Your task to perform on an android device: Open Google Maps and go to "Timeline" Image 0: 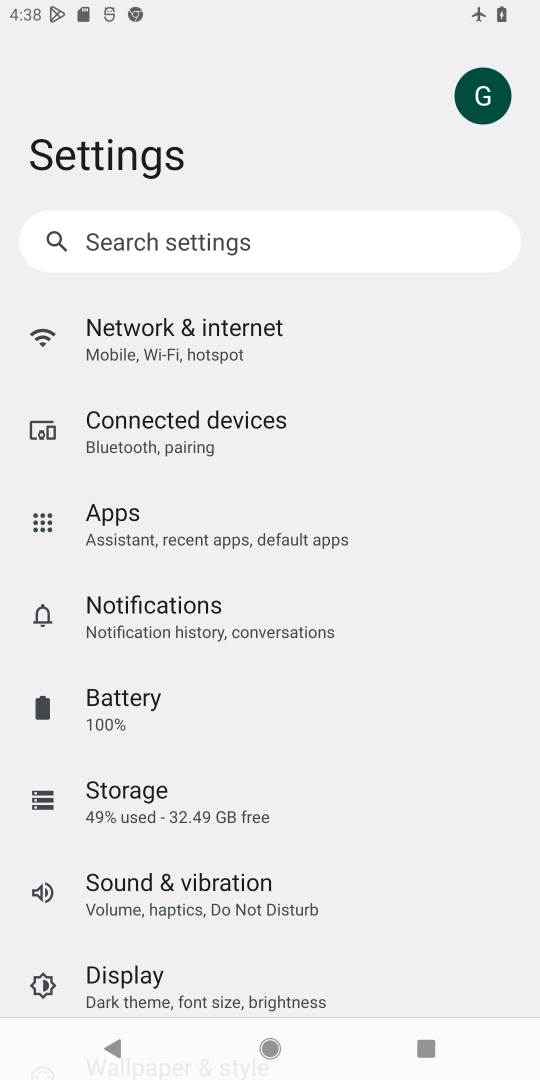
Step 0: press home button
Your task to perform on an android device: Open Google Maps and go to "Timeline" Image 1: 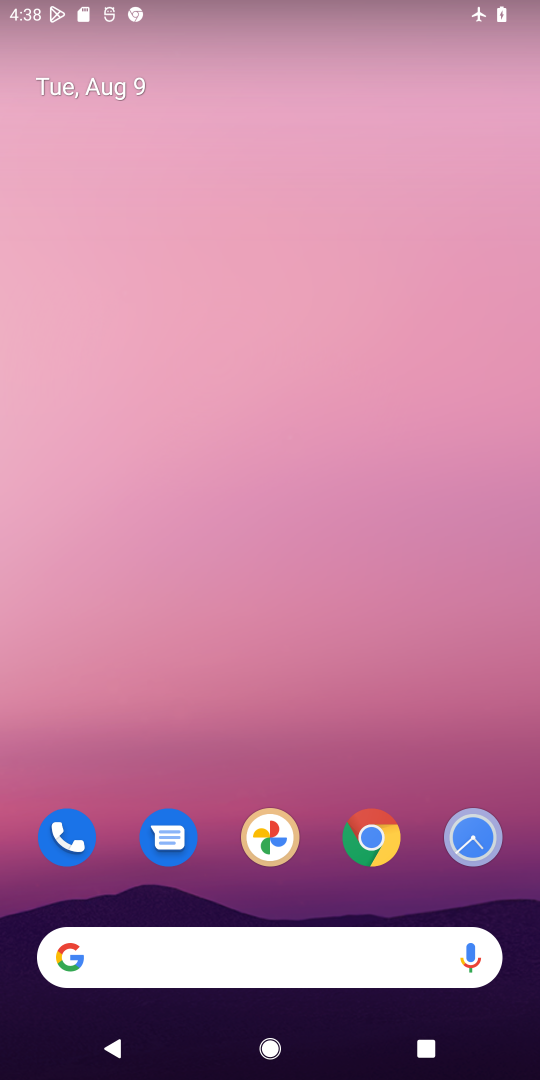
Step 1: drag from (102, 859) to (155, 108)
Your task to perform on an android device: Open Google Maps and go to "Timeline" Image 2: 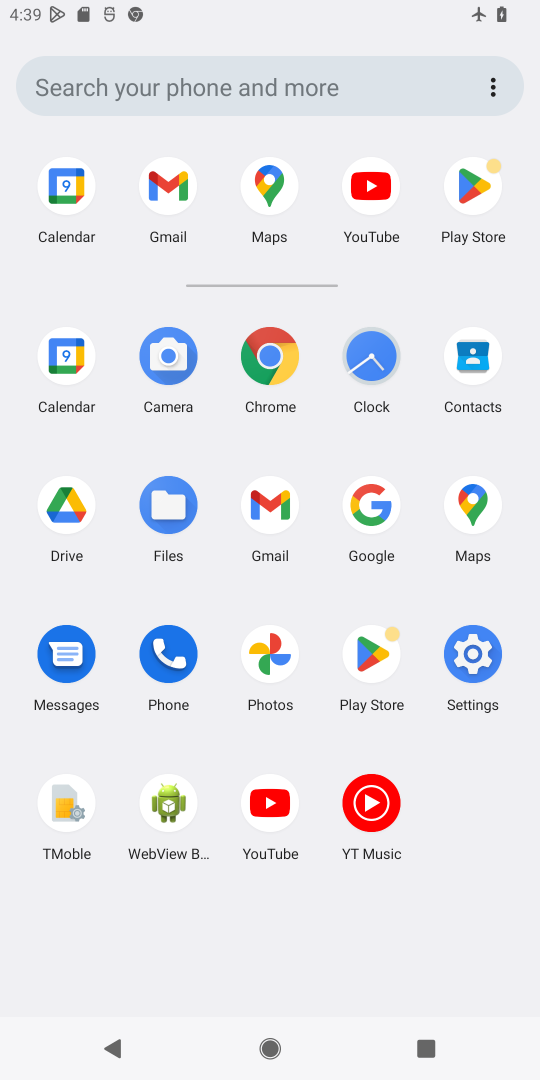
Step 2: click (463, 510)
Your task to perform on an android device: Open Google Maps and go to "Timeline" Image 3: 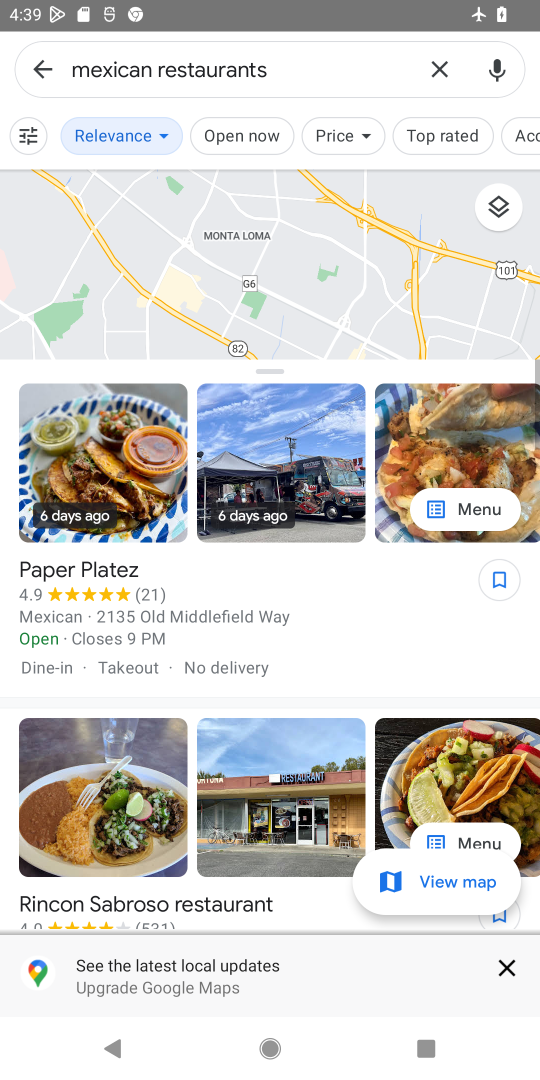
Step 3: click (422, 63)
Your task to perform on an android device: Open Google Maps and go to "Timeline" Image 4: 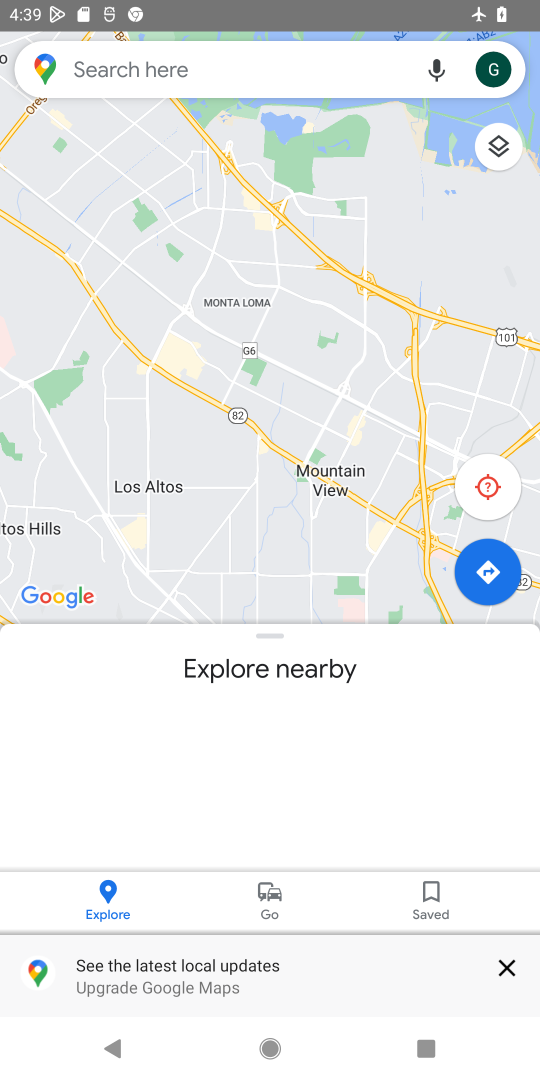
Step 4: click (265, 64)
Your task to perform on an android device: Open Google Maps and go to "Timeline" Image 5: 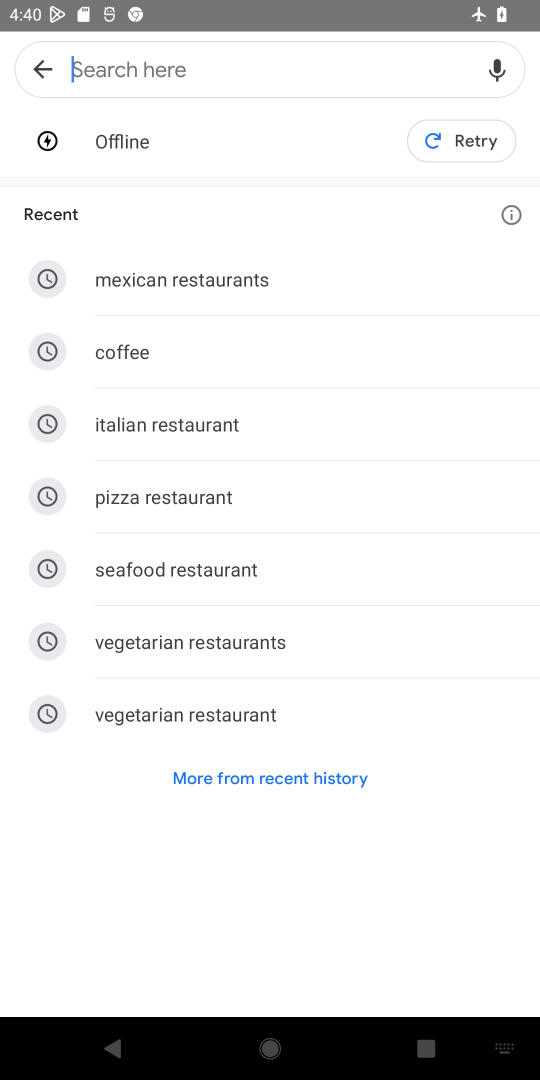
Step 5: click (30, 57)
Your task to perform on an android device: Open Google Maps and go to "Timeline" Image 6: 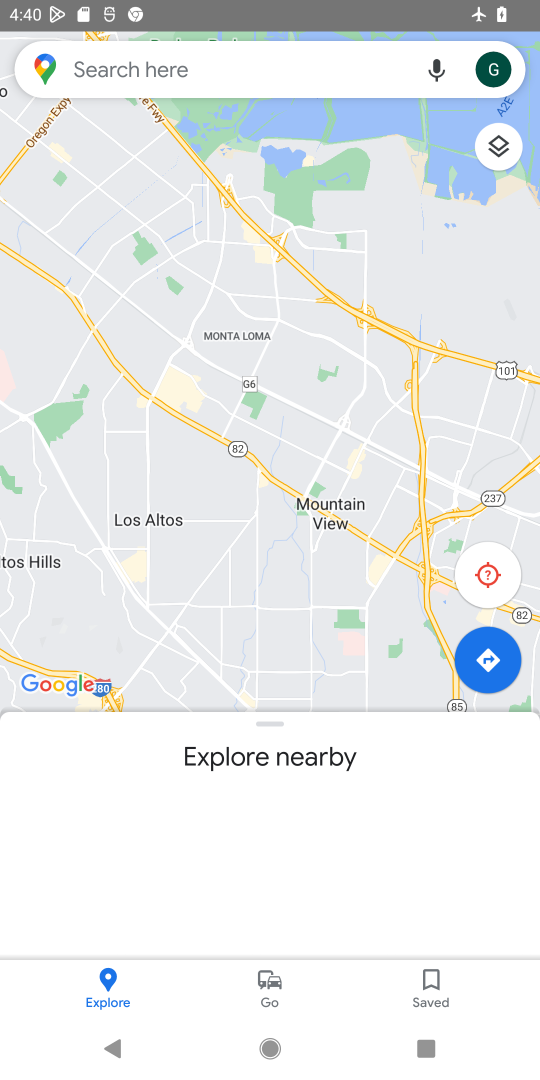
Step 6: click (499, 78)
Your task to perform on an android device: Open Google Maps and go to "Timeline" Image 7: 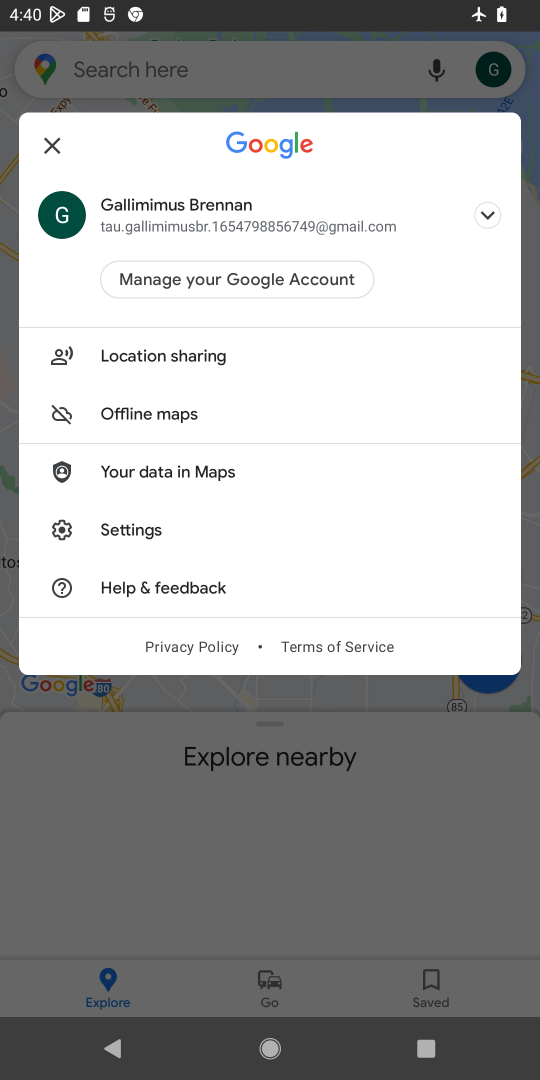
Step 7: click (458, 848)
Your task to perform on an android device: Open Google Maps and go to "Timeline" Image 8: 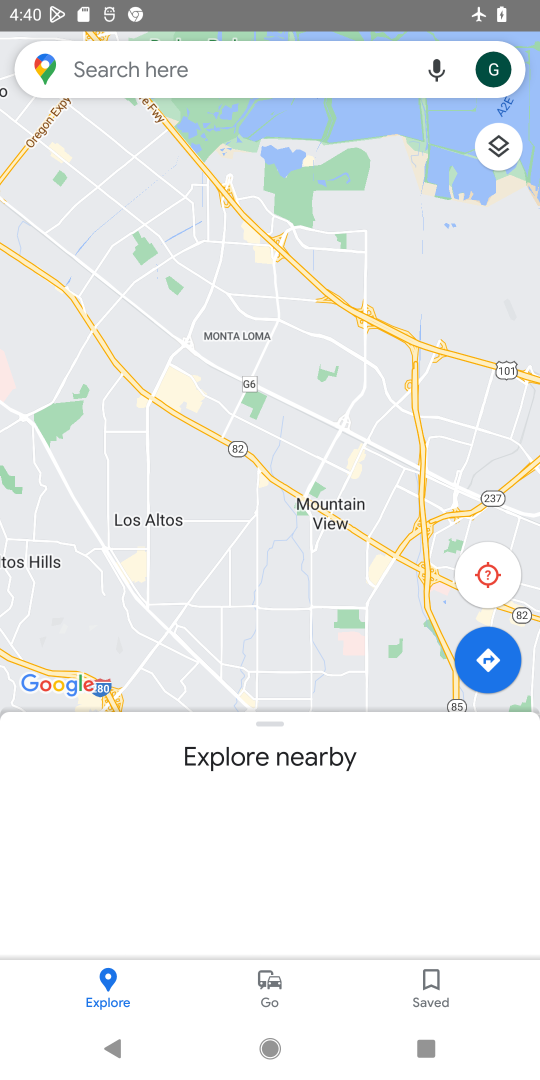
Step 8: click (36, 70)
Your task to perform on an android device: Open Google Maps and go to "Timeline" Image 9: 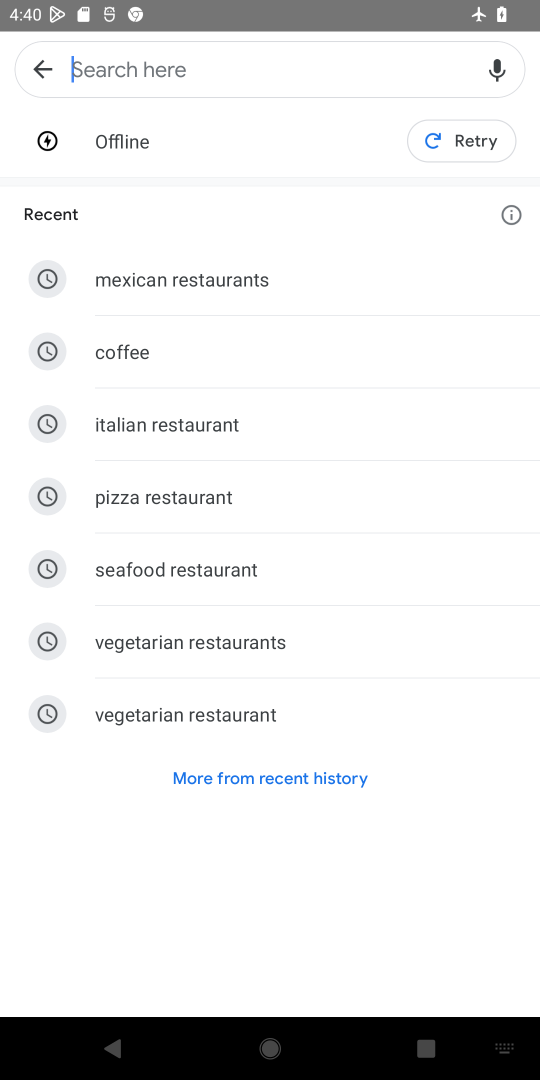
Step 9: task complete